Your task to perform on an android device: move a message to another label in the gmail app Image 0: 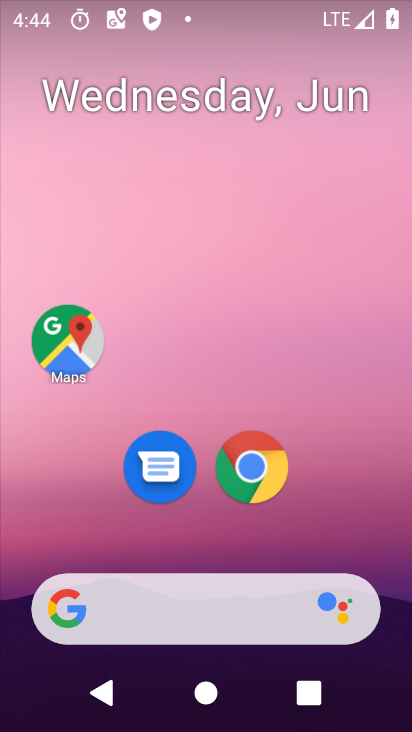
Step 0: drag from (350, 537) to (173, 0)
Your task to perform on an android device: move a message to another label in the gmail app Image 1: 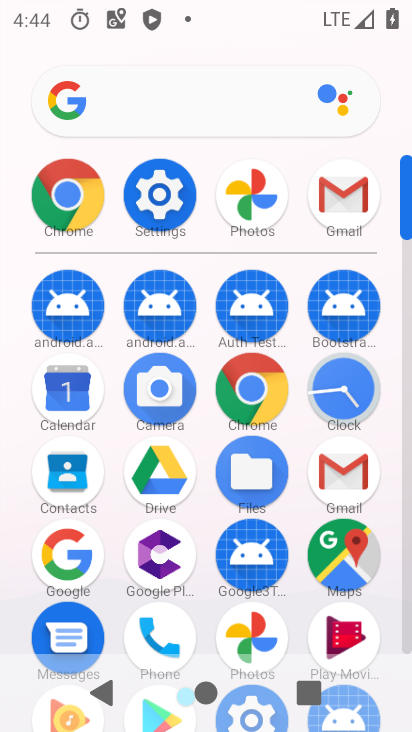
Step 1: click (352, 199)
Your task to perform on an android device: move a message to another label in the gmail app Image 2: 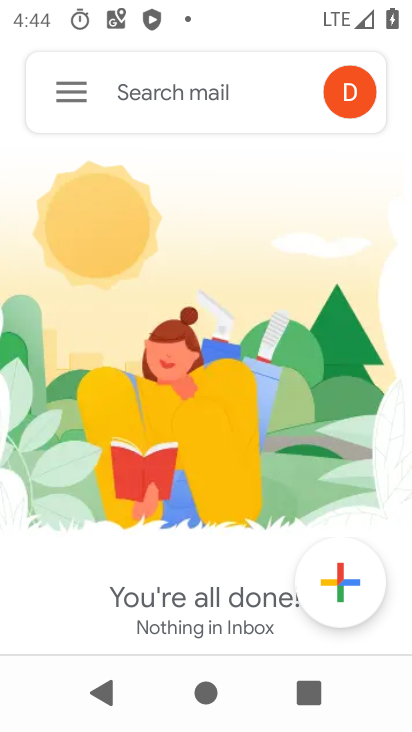
Step 2: click (66, 80)
Your task to perform on an android device: move a message to another label in the gmail app Image 3: 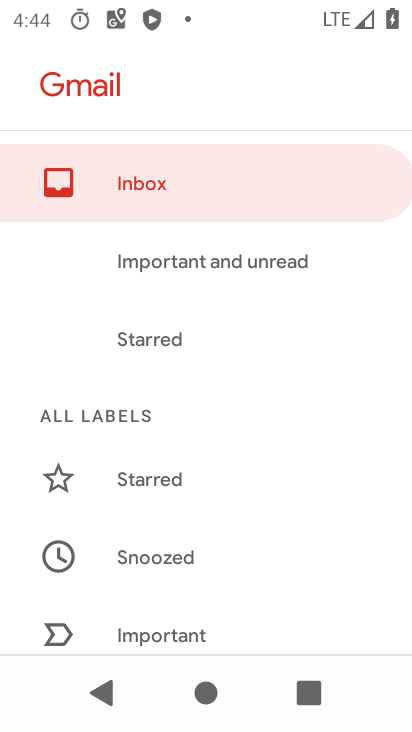
Step 3: drag from (287, 575) to (255, 114)
Your task to perform on an android device: move a message to another label in the gmail app Image 4: 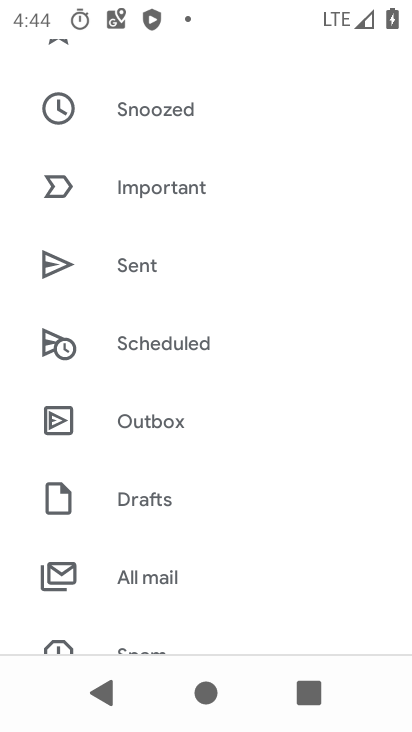
Step 4: click (195, 581)
Your task to perform on an android device: move a message to another label in the gmail app Image 5: 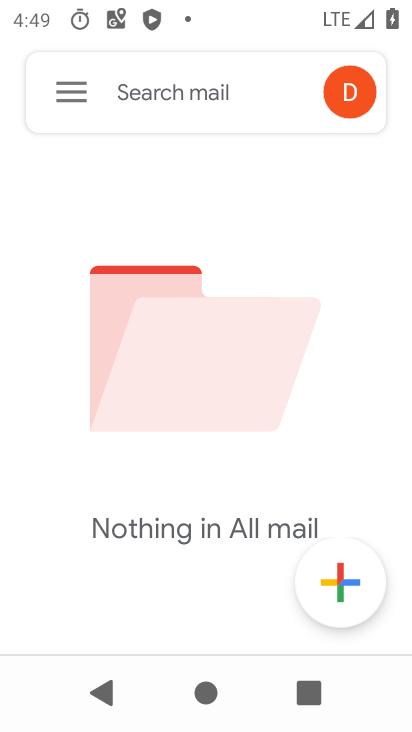
Step 5: task complete